Your task to perform on an android device: set an alarm Image 0: 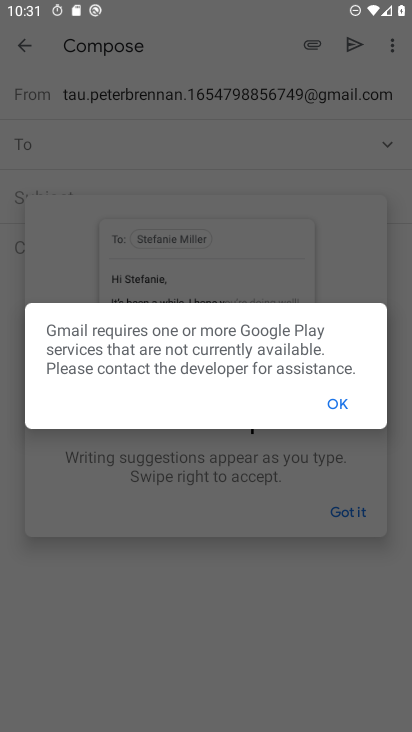
Step 0: press home button
Your task to perform on an android device: set an alarm Image 1: 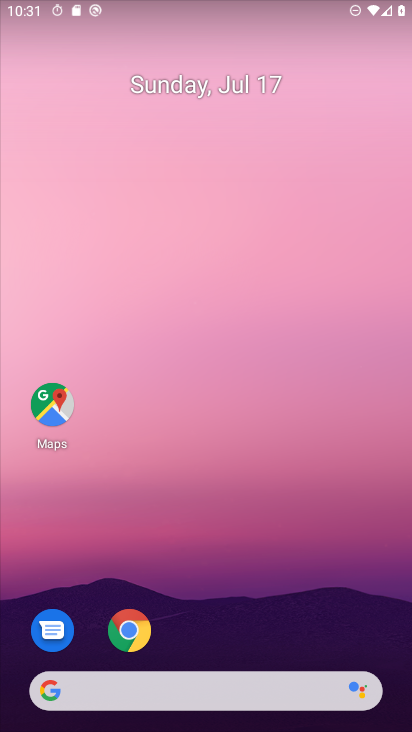
Step 1: drag from (109, 613) to (87, 75)
Your task to perform on an android device: set an alarm Image 2: 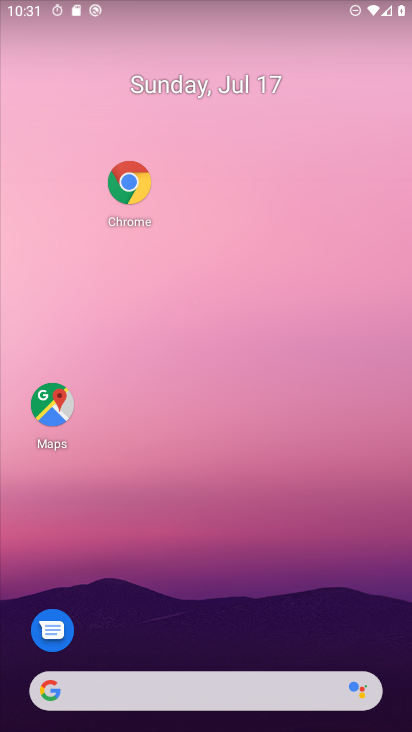
Step 2: drag from (275, 628) to (280, 49)
Your task to perform on an android device: set an alarm Image 3: 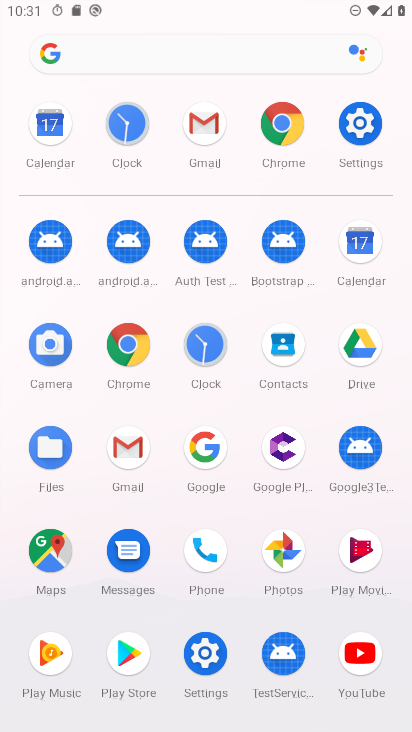
Step 3: click (205, 335)
Your task to perform on an android device: set an alarm Image 4: 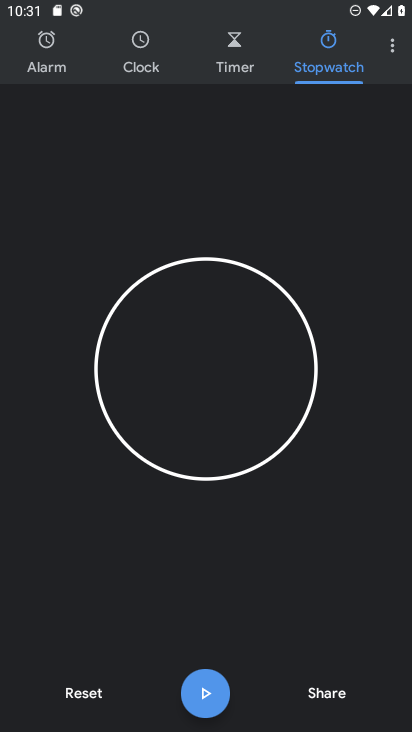
Step 4: click (52, 42)
Your task to perform on an android device: set an alarm Image 5: 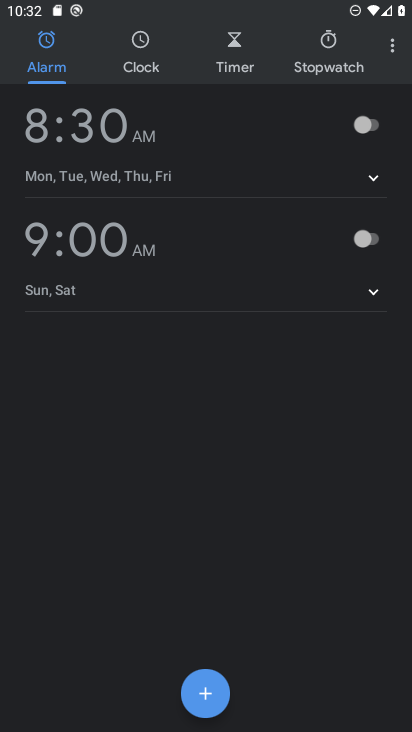
Step 5: click (370, 133)
Your task to perform on an android device: set an alarm Image 6: 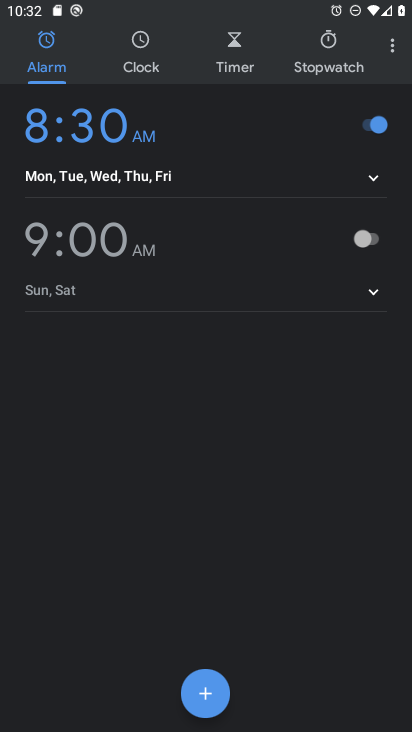
Step 6: task complete